Your task to perform on an android device: allow notifications from all sites in the chrome app Image 0: 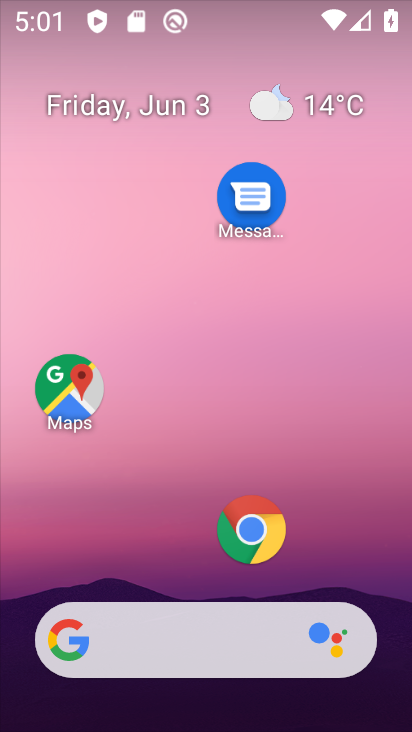
Step 0: click (246, 519)
Your task to perform on an android device: allow notifications from all sites in the chrome app Image 1: 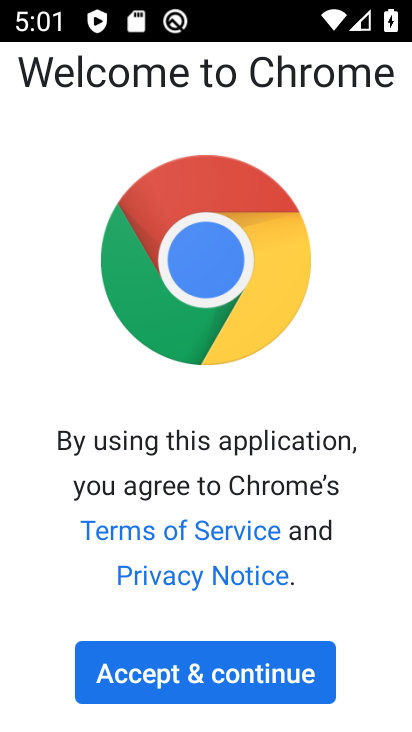
Step 1: click (204, 666)
Your task to perform on an android device: allow notifications from all sites in the chrome app Image 2: 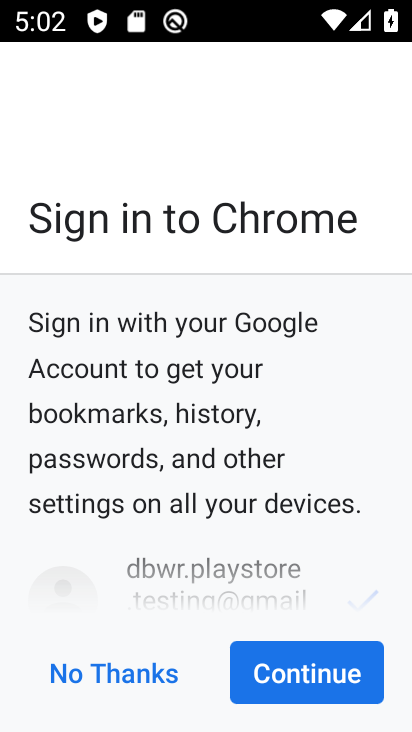
Step 2: click (113, 668)
Your task to perform on an android device: allow notifications from all sites in the chrome app Image 3: 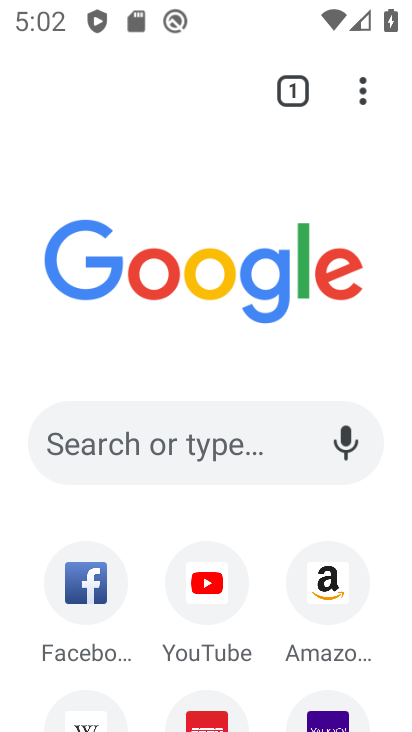
Step 3: drag from (355, 82) to (103, 553)
Your task to perform on an android device: allow notifications from all sites in the chrome app Image 4: 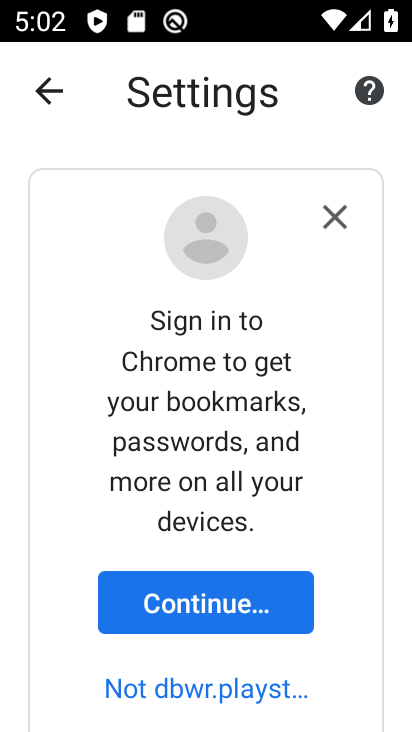
Step 4: click (334, 211)
Your task to perform on an android device: allow notifications from all sites in the chrome app Image 5: 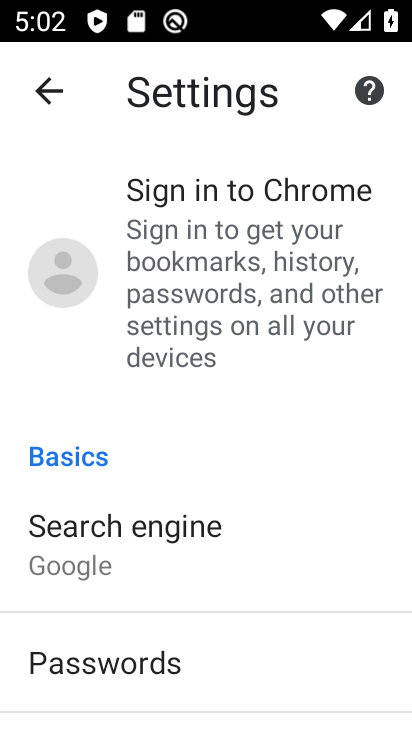
Step 5: drag from (153, 599) to (240, 57)
Your task to perform on an android device: allow notifications from all sites in the chrome app Image 6: 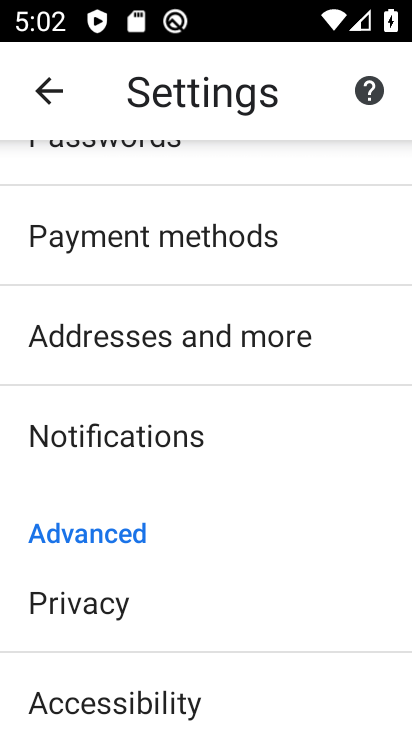
Step 6: click (101, 440)
Your task to perform on an android device: allow notifications from all sites in the chrome app Image 7: 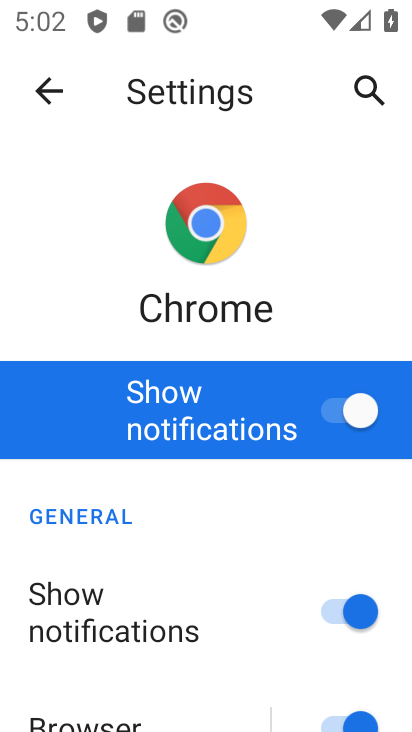
Step 7: task complete